Your task to perform on an android device: Open Wikipedia Image 0: 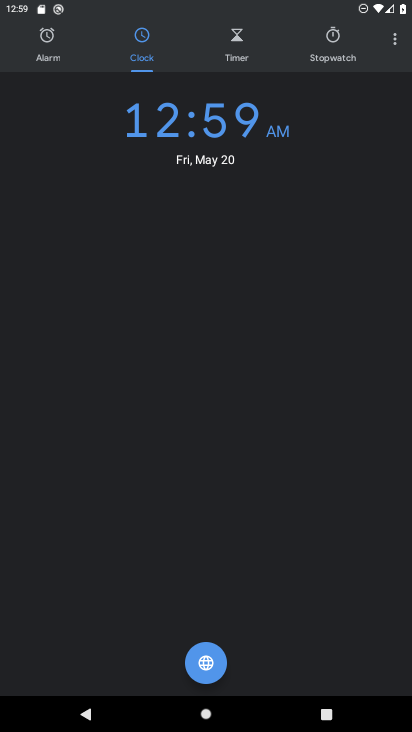
Step 0: press home button
Your task to perform on an android device: Open Wikipedia Image 1: 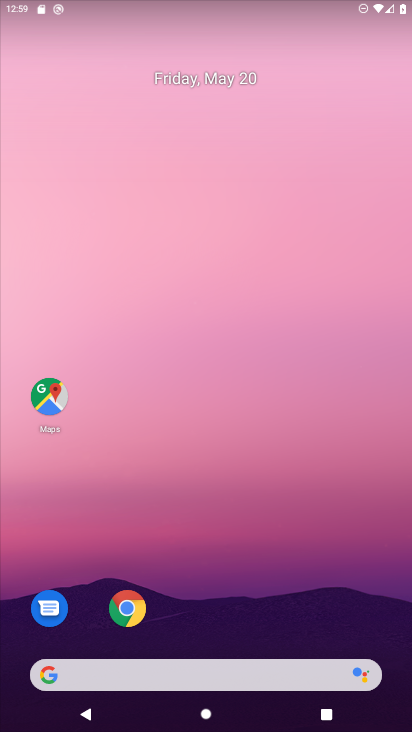
Step 1: click (104, 616)
Your task to perform on an android device: Open Wikipedia Image 2: 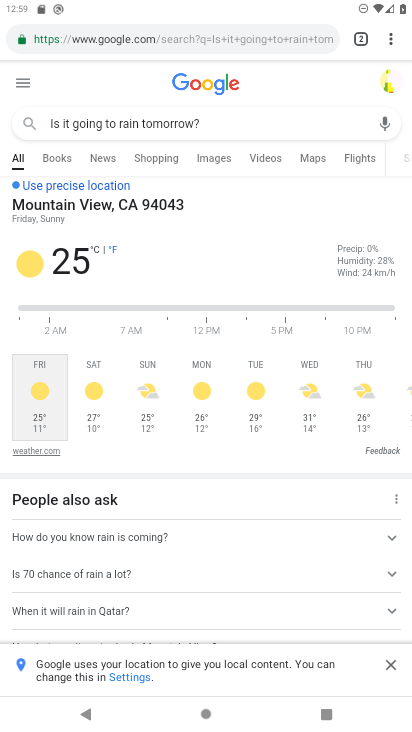
Step 2: click (149, 28)
Your task to perform on an android device: Open Wikipedia Image 3: 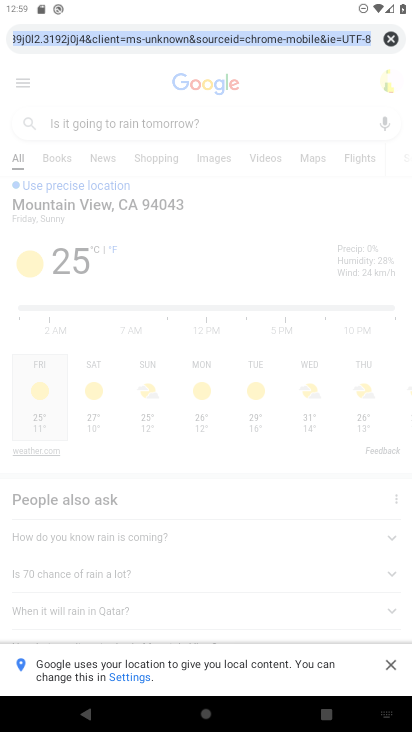
Step 3: click (382, 36)
Your task to perform on an android device: Open Wikipedia Image 4: 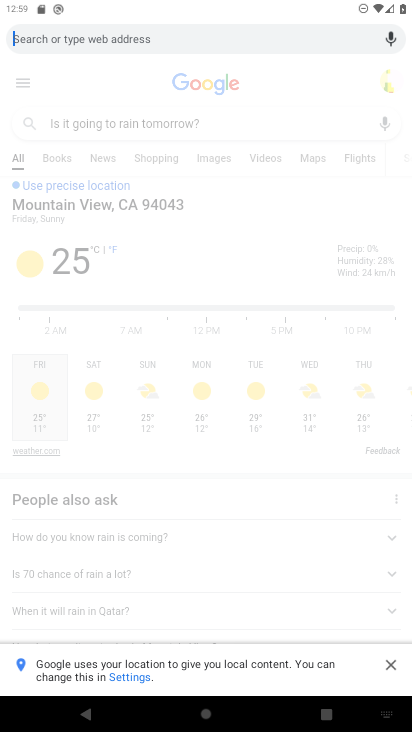
Step 4: type "Wikipedia"
Your task to perform on an android device: Open Wikipedia Image 5: 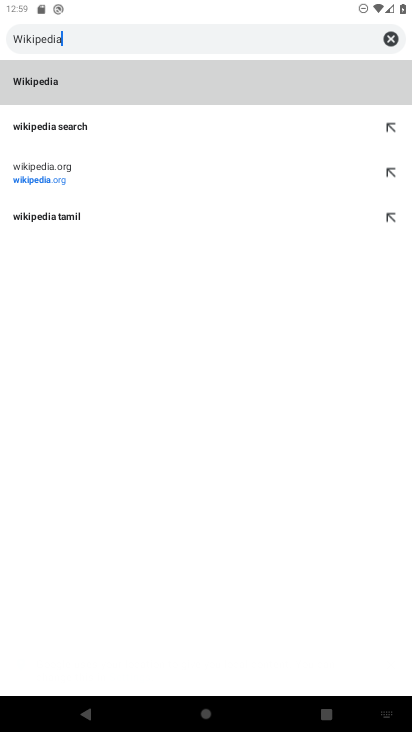
Step 5: click (327, 67)
Your task to perform on an android device: Open Wikipedia Image 6: 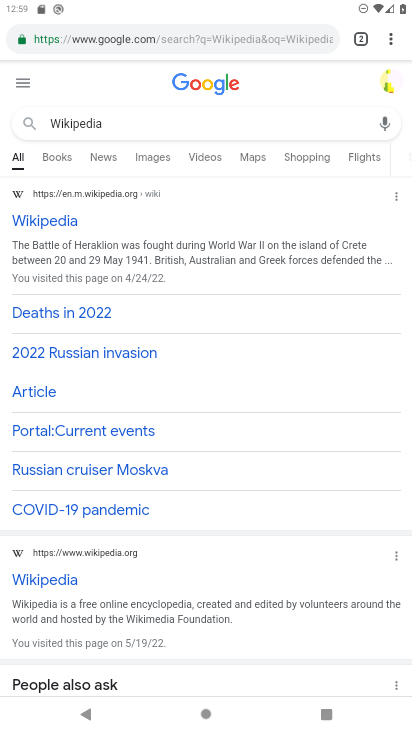
Step 6: click (33, 213)
Your task to perform on an android device: Open Wikipedia Image 7: 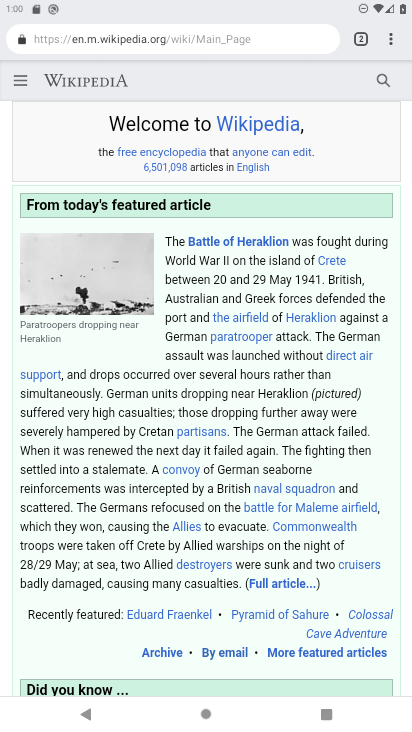
Step 7: task complete